Your task to perform on an android device: Open Yahoo.com Image 0: 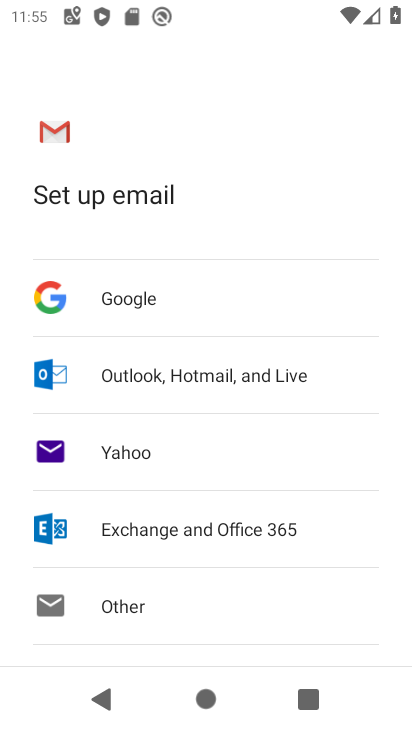
Step 0: press home button
Your task to perform on an android device: Open Yahoo.com Image 1: 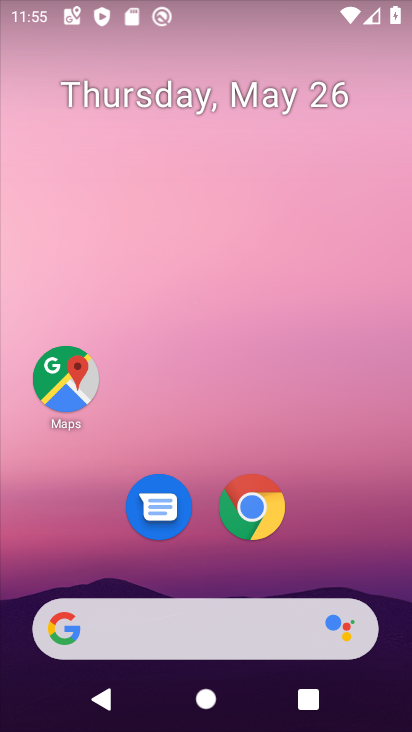
Step 1: click (255, 503)
Your task to perform on an android device: Open Yahoo.com Image 2: 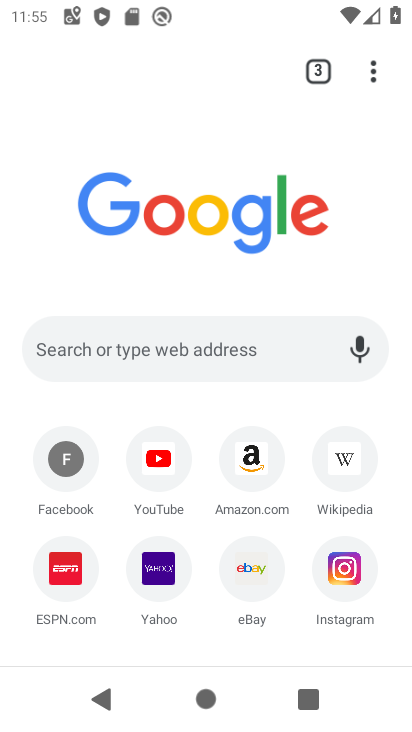
Step 2: click (171, 563)
Your task to perform on an android device: Open Yahoo.com Image 3: 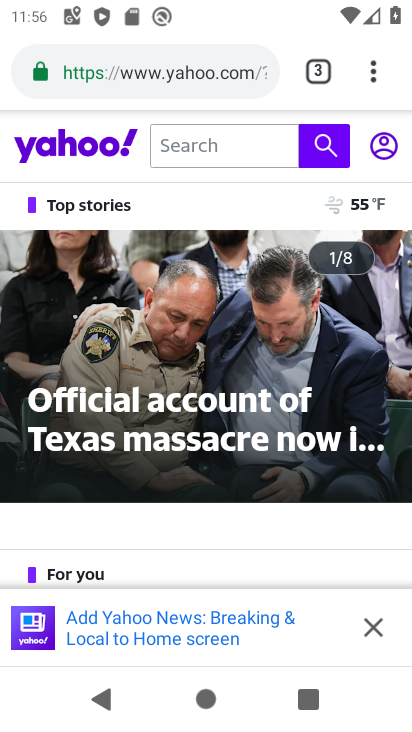
Step 3: task complete